Your task to perform on an android device: manage bookmarks in the chrome app Image 0: 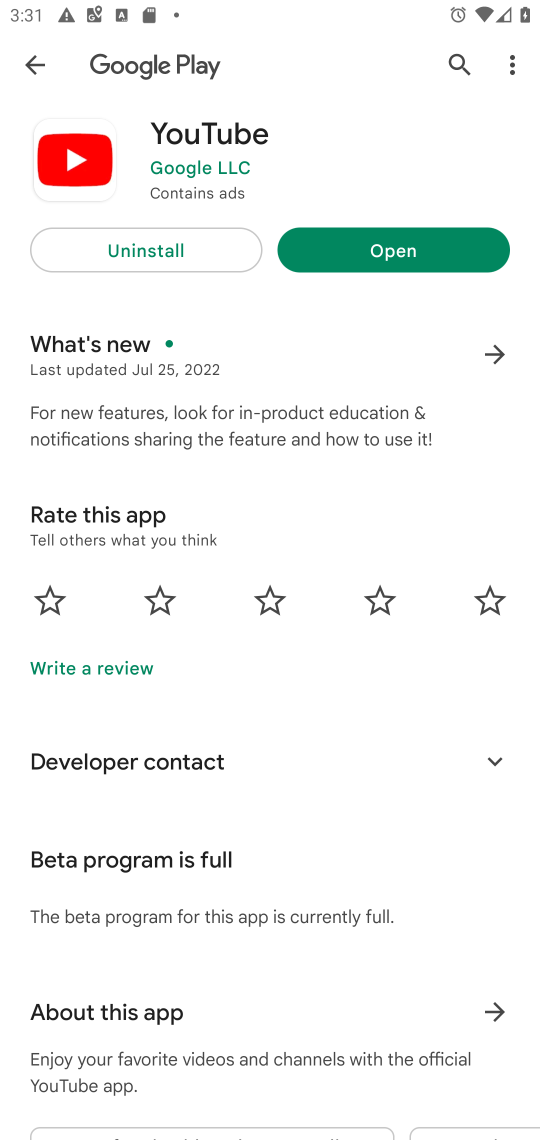
Step 0: press home button
Your task to perform on an android device: manage bookmarks in the chrome app Image 1: 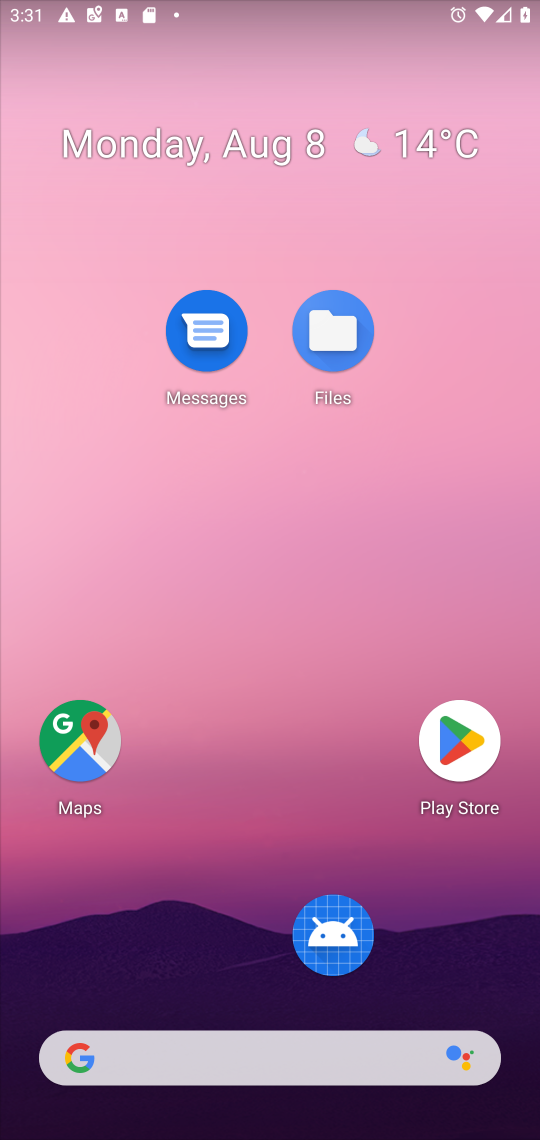
Step 1: drag from (254, 1070) to (225, 270)
Your task to perform on an android device: manage bookmarks in the chrome app Image 2: 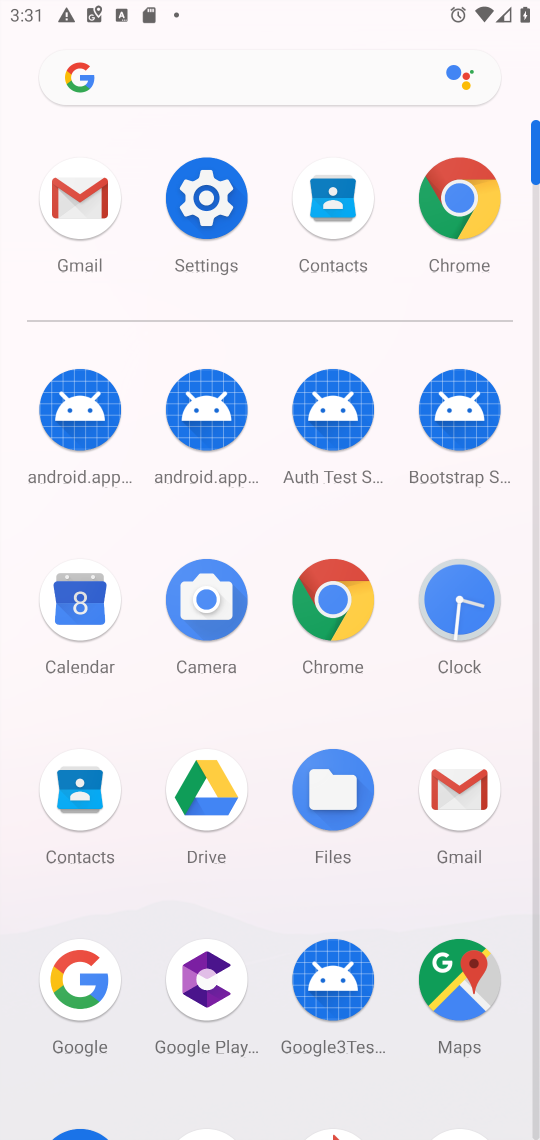
Step 2: click (334, 594)
Your task to perform on an android device: manage bookmarks in the chrome app Image 3: 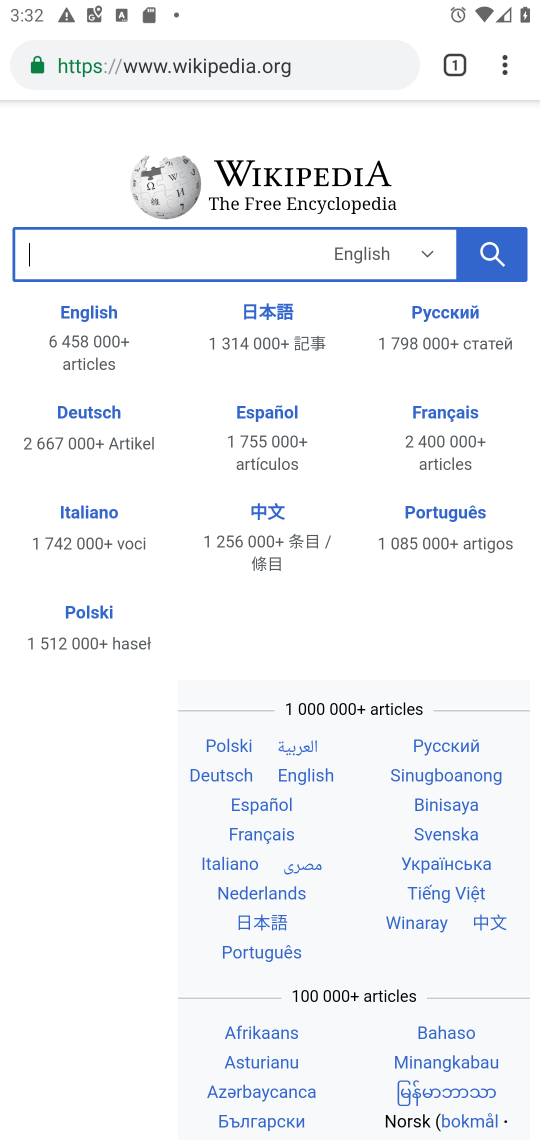
Step 3: click (506, 59)
Your task to perform on an android device: manage bookmarks in the chrome app Image 4: 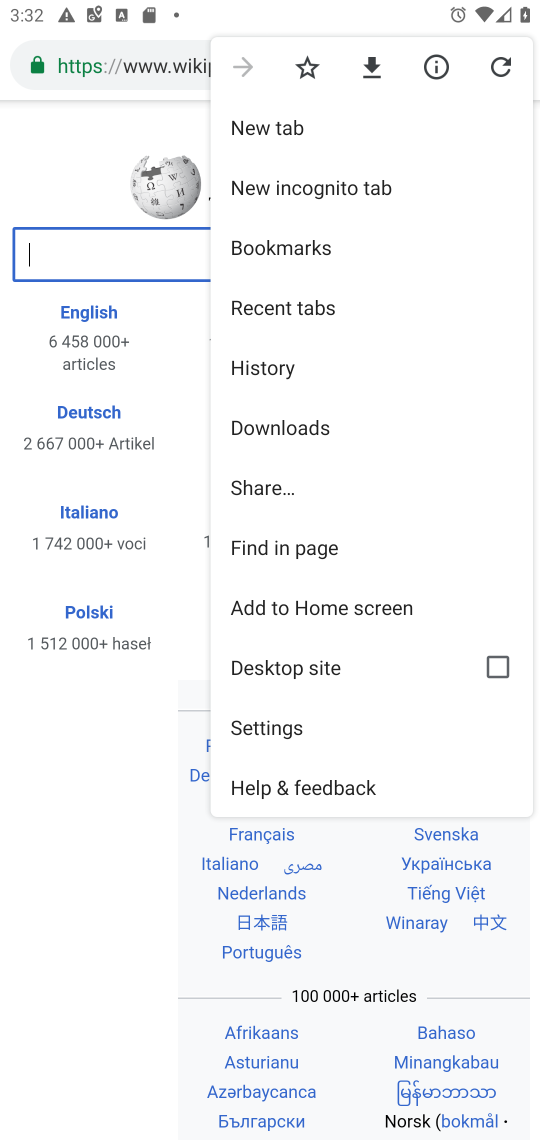
Step 4: click (324, 247)
Your task to perform on an android device: manage bookmarks in the chrome app Image 5: 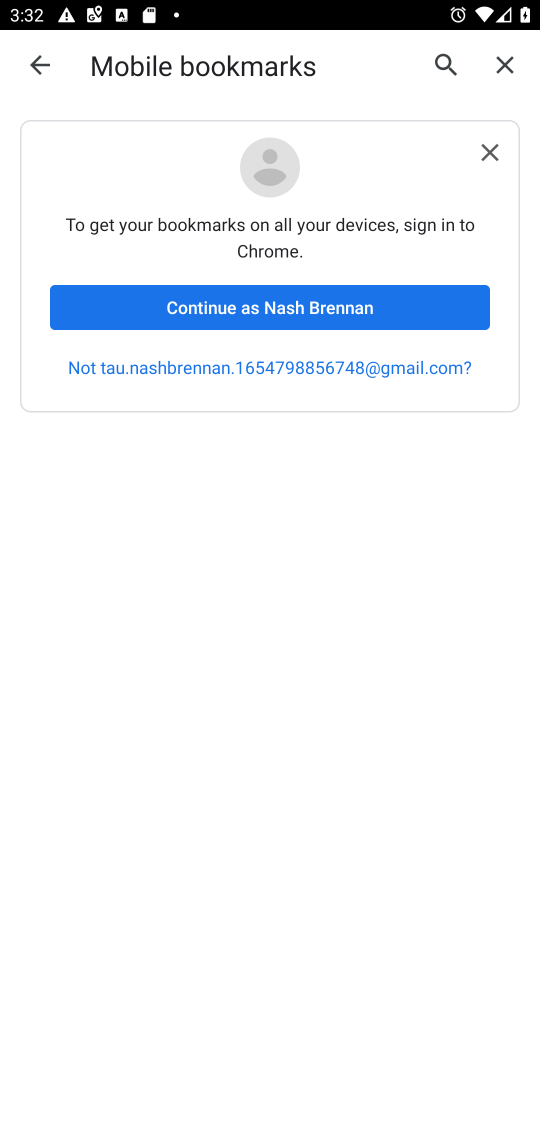
Step 5: task complete